Your task to perform on an android device: Go to Maps Image 0: 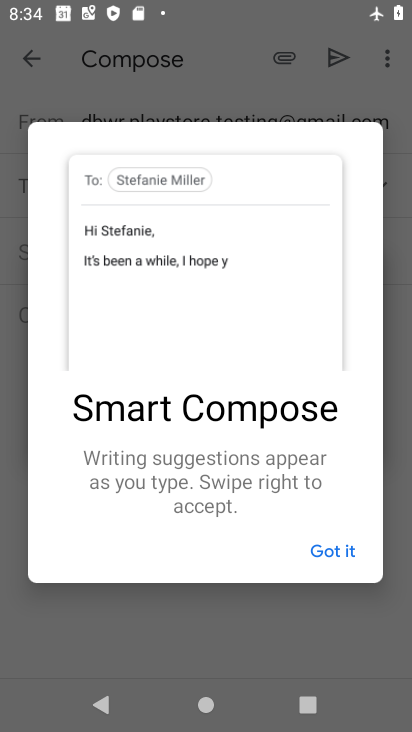
Step 0: press home button
Your task to perform on an android device: Go to Maps Image 1: 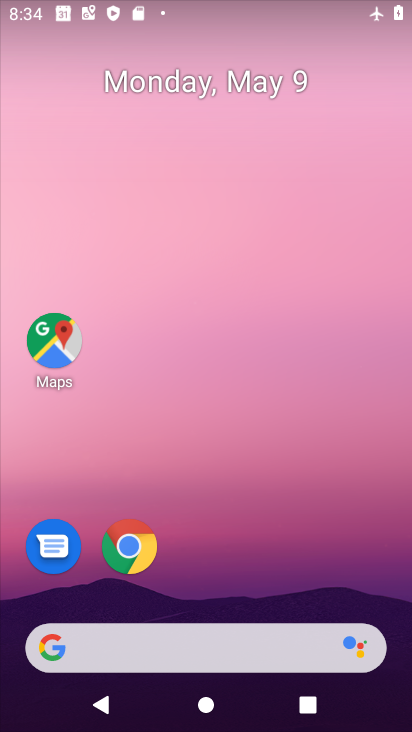
Step 1: click (52, 333)
Your task to perform on an android device: Go to Maps Image 2: 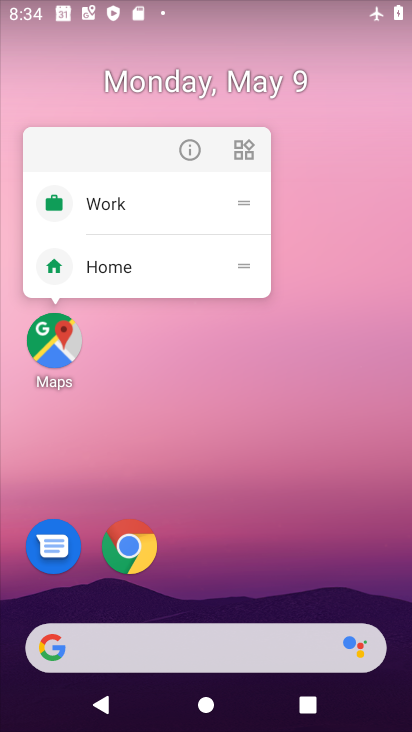
Step 2: click (180, 397)
Your task to perform on an android device: Go to Maps Image 3: 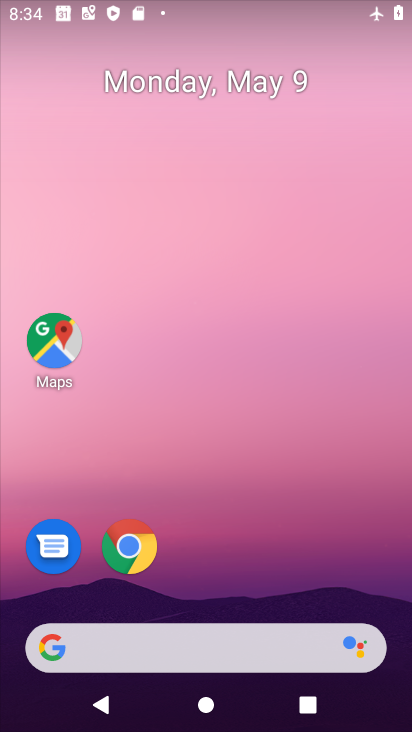
Step 3: click (57, 353)
Your task to perform on an android device: Go to Maps Image 4: 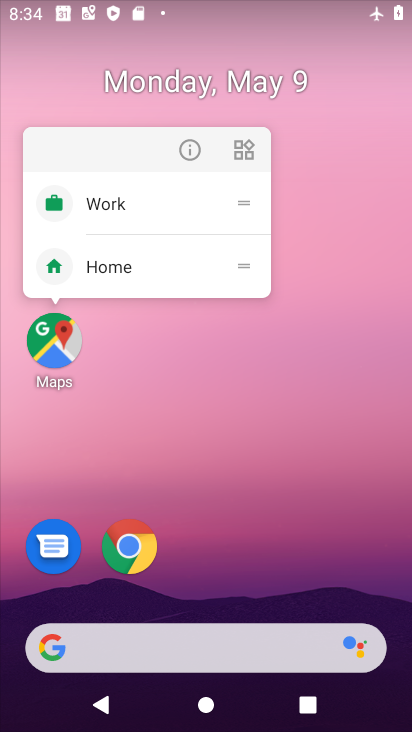
Step 4: click (57, 353)
Your task to perform on an android device: Go to Maps Image 5: 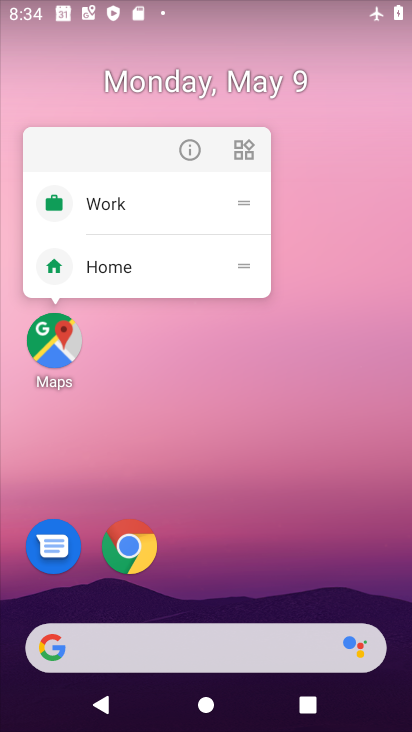
Step 5: click (57, 353)
Your task to perform on an android device: Go to Maps Image 6: 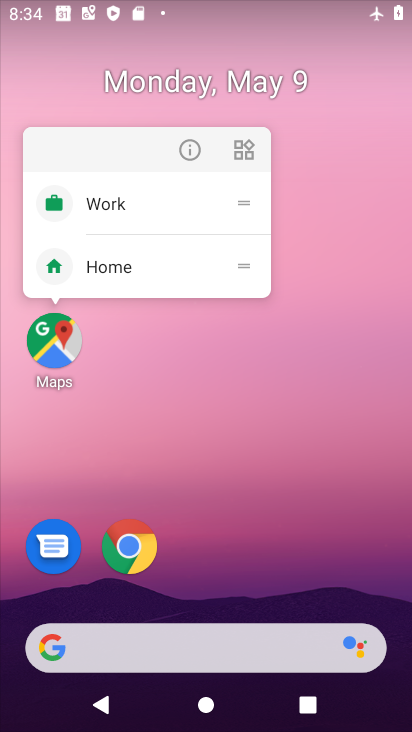
Step 6: click (57, 353)
Your task to perform on an android device: Go to Maps Image 7: 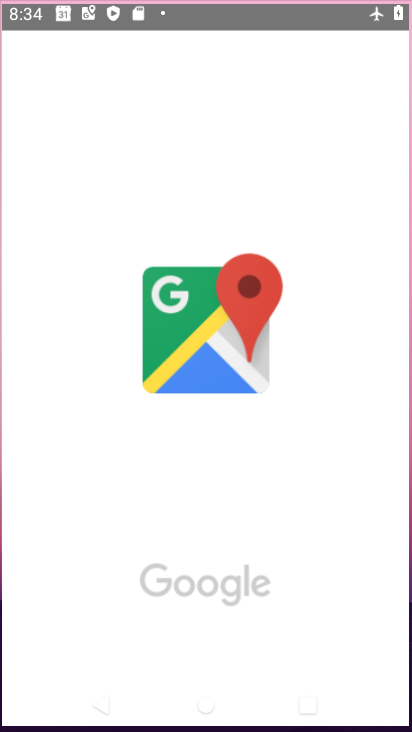
Step 7: click (57, 353)
Your task to perform on an android device: Go to Maps Image 8: 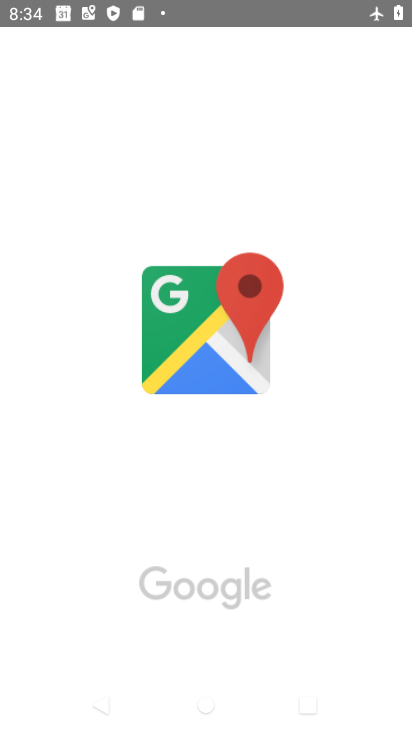
Step 8: click (57, 353)
Your task to perform on an android device: Go to Maps Image 9: 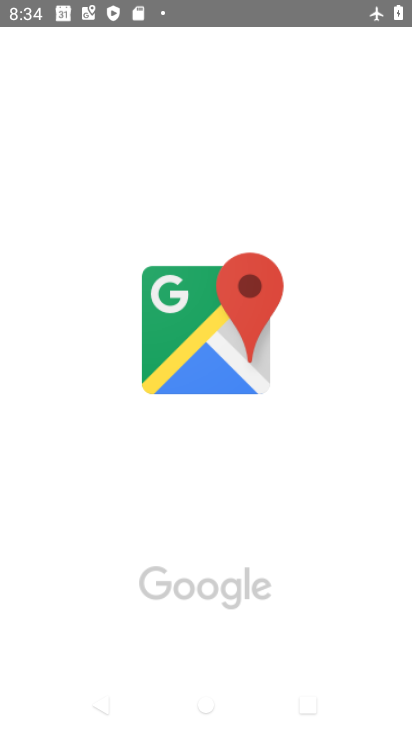
Step 9: click (57, 353)
Your task to perform on an android device: Go to Maps Image 10: 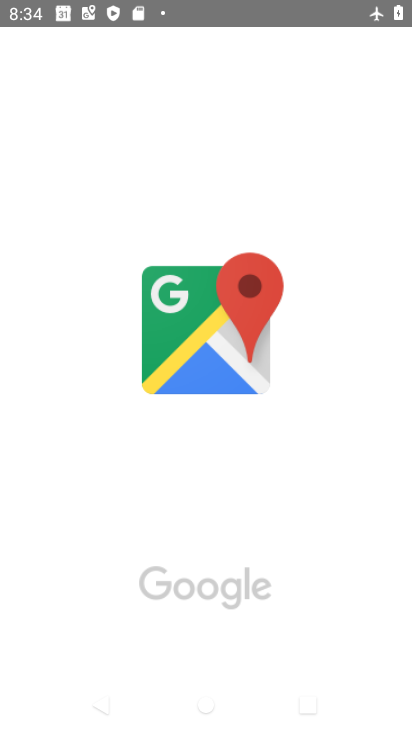
Step 10: click (57, 353)
Your task to perform on an android device: Go to Maps Image 11: 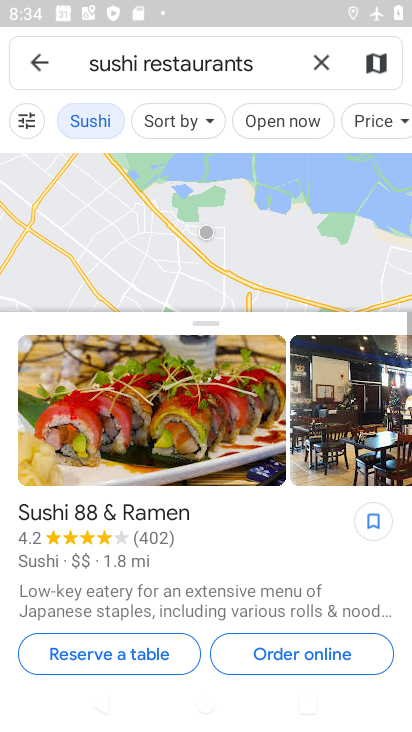
Step 11: click (36, 58)
Your task to perform on an android device: Go to Maps Image 12: 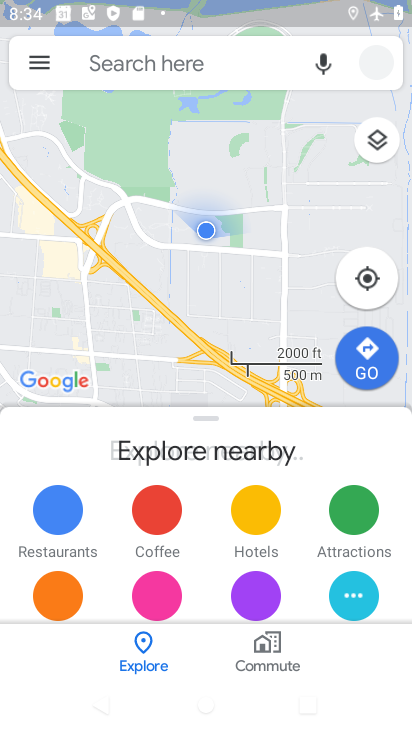
Step 12: task complete